Your task to perform on an android device: Open calendar and show me the first week of next month Image 0: 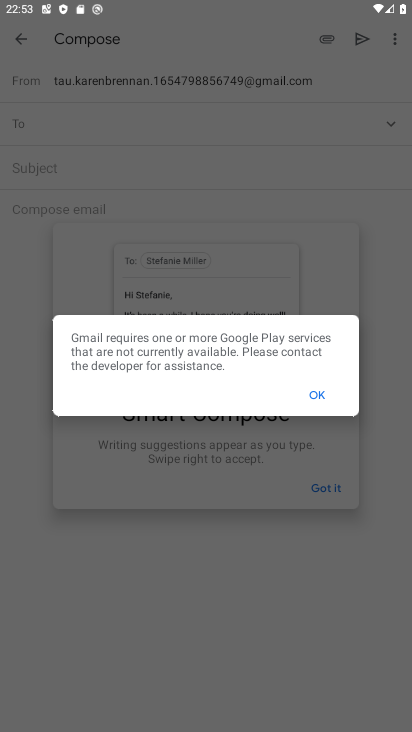
Step 0: press home button
Your task to perform on an android device: Open calendar and show me the first week of next month Image 1: 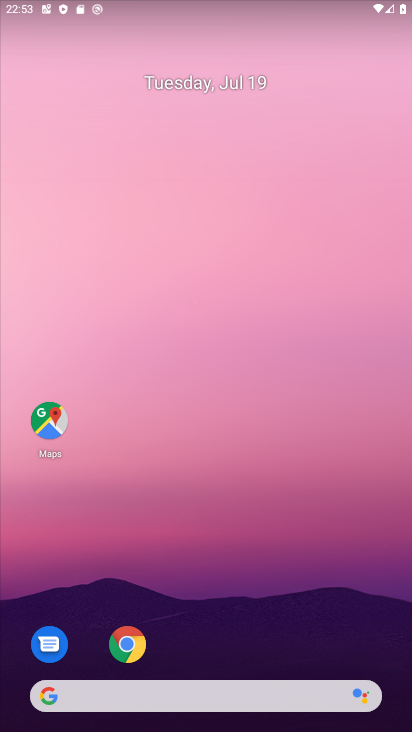
Step 1: drag from (213, 673) to (222, 404)
Your task to perform on an android device: Open calendar and show me the first week of next month Image 2: 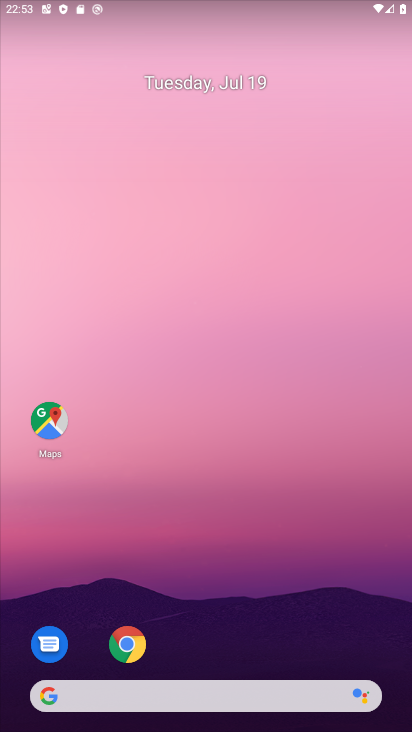
Step 2: drag from (247, 731) to (246, 245)
Your task to perform on an android device: Open calendar and show me the first week of next month Image 3: 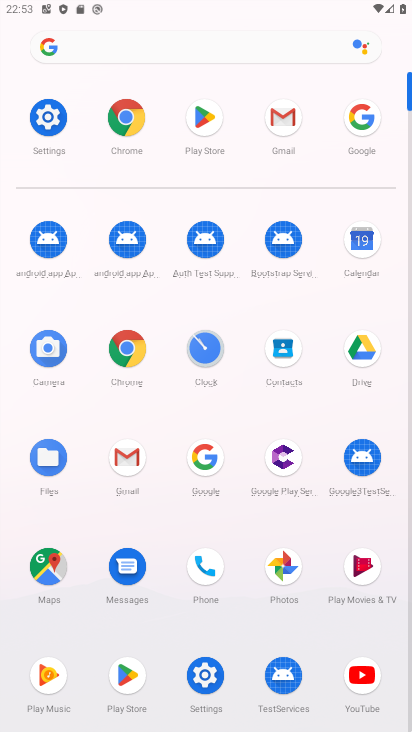
Step 3: click (357, 246)
Your task to perform on an android device: Open calendar and show me the first week of next month Image 4: 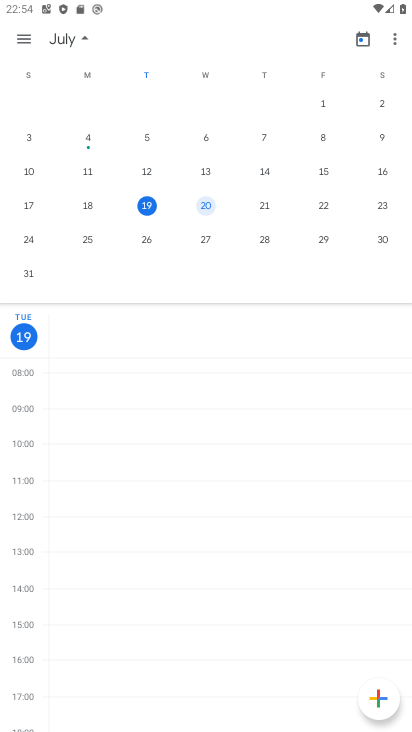
Step 4: drag from (356, 203) to (93, 187)
Your task to perform on an android device: Open calendar and show me the first week of next month Image 5: 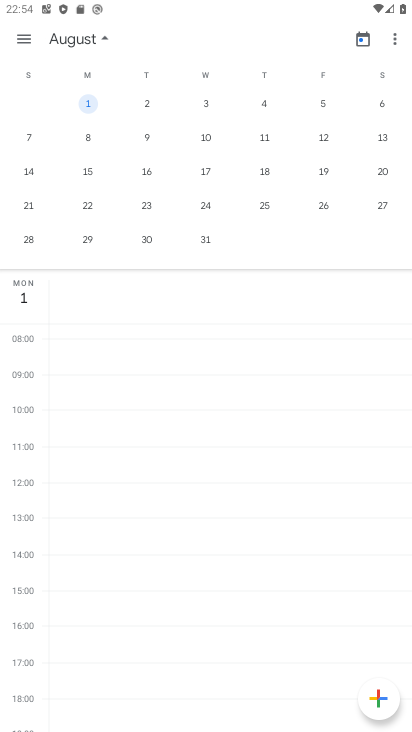
Step 5: click (87, 132)
Your task to perform on an android device: Open calendar and show me the first week of next month Image 6: 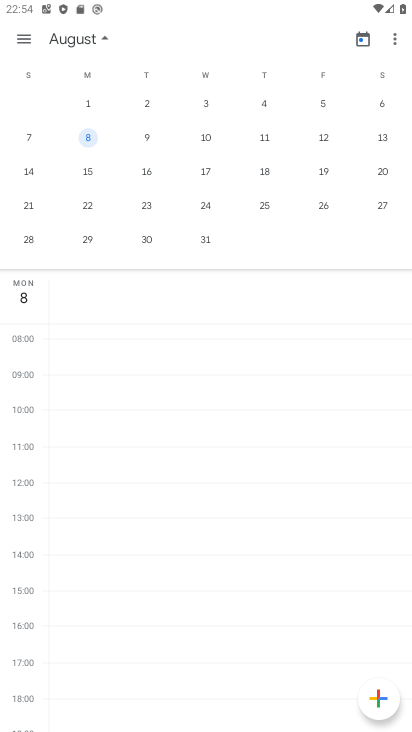
Step 6: click (22, 37)
Your task to perform on an android device: Open calendar and show me the first week of next month Image 7: 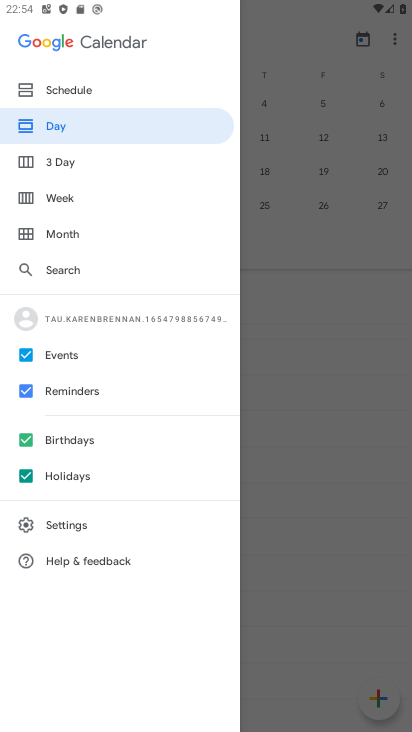
Step 7: click (62, 191)
Your task to perform on an android device: Open calendar and show me the first week of next month Image 8: 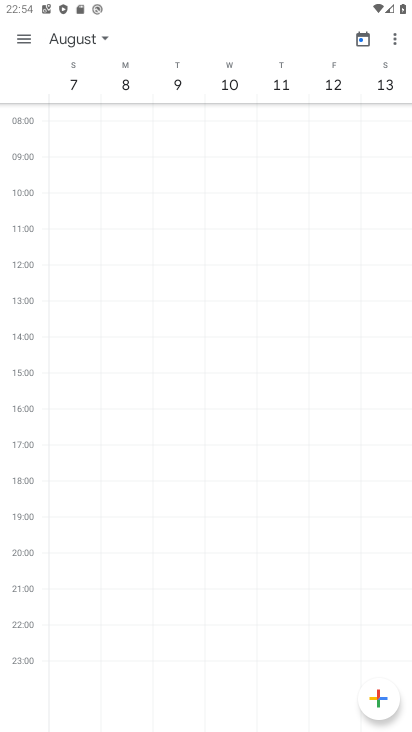
Step 8: task complete